Your task to perform on an android device: change alarm snooze length Image 0: 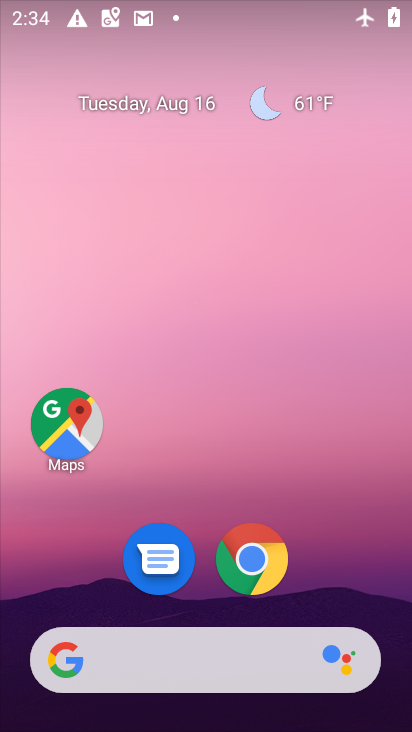
Step 0: drag from (372, 592) to (335, 85)
Your task to perform on an android device: change alarm snooze length Image 1: 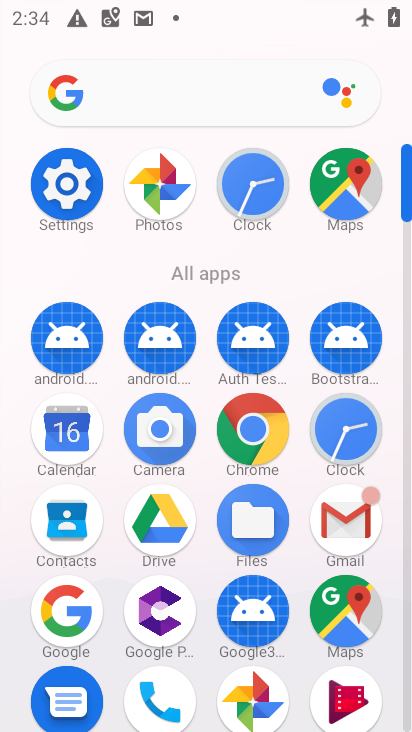
Step 1: click (344, 430)
Your task to perform on an android device: change alarm snooze length Image 2: 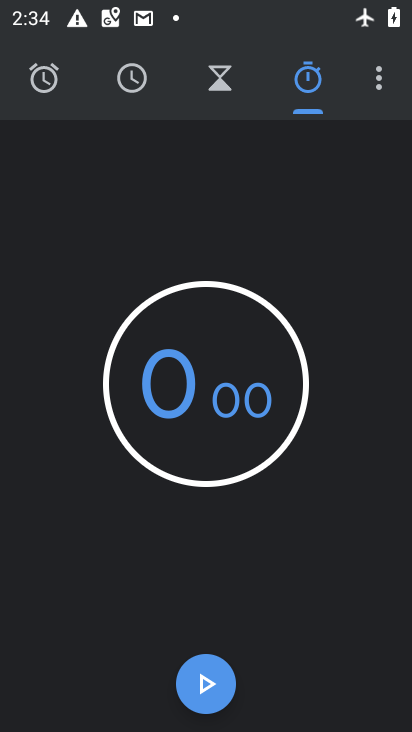
Step 2: click (376, 92)
Your task to perform on an android device: change alarm snooze length Image 3: 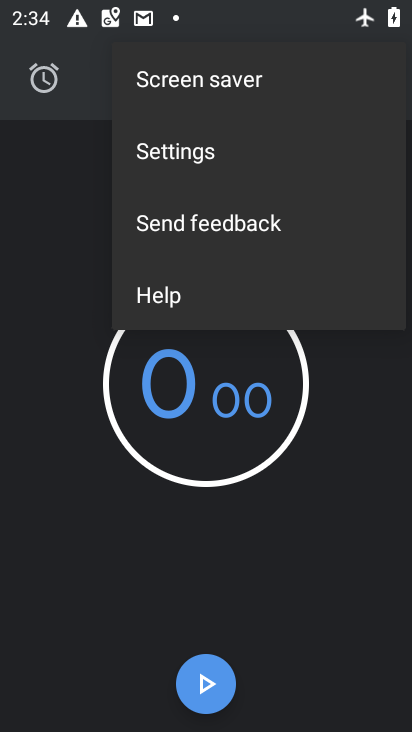
Step 3: click (162, 150)
Your task to perform on an android device: change alarm snooze length Image 4: 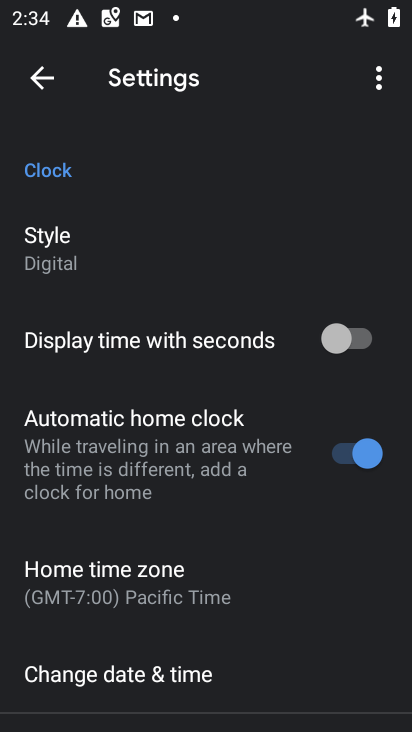
Step 4: drag from (276, 565) to (264, 281)
Your task to perform on an android device: change alarm snooze length Image 5: 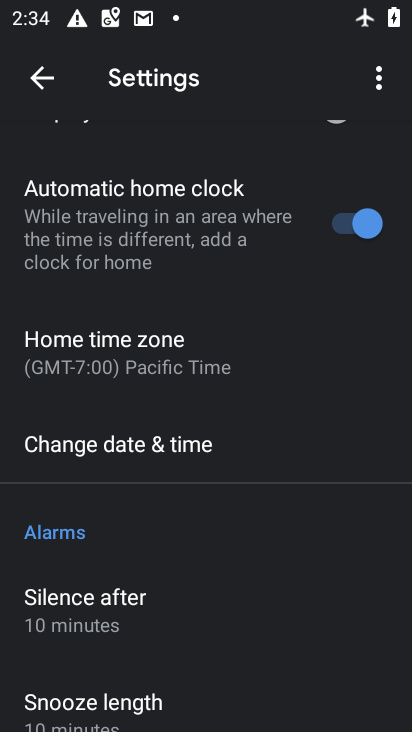
Step 5: drag from (250, 653) to (245, 235)
Your task to perform on an android device: change alarm snooze length Image 6: 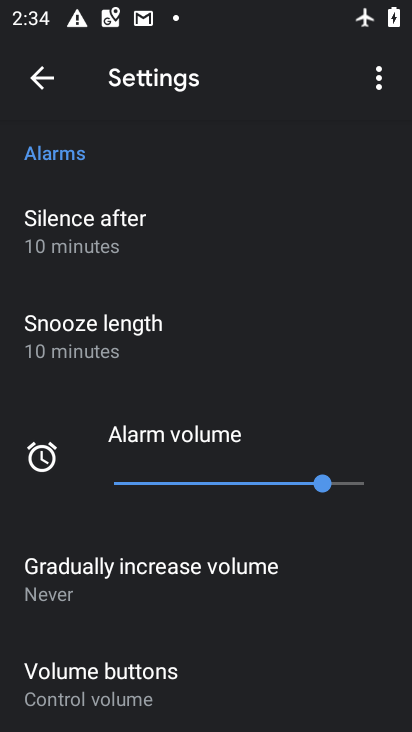
Step 6: click (87, 337)
Your task to perform on an android device: change alarm snooze length Image 7: 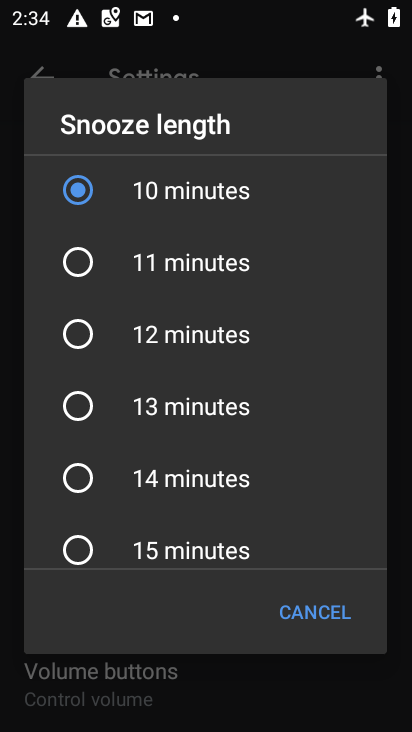
Step 7: drag from (110, 511) to (129, 283)
Your task to perform on an android device: change alarm snooze length Image 8: 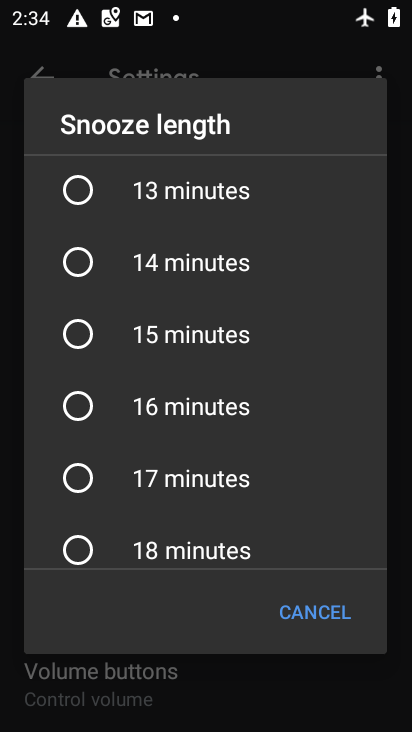
Step 8: click (76, 333)
Your task to perform on an android device: change alarm snooze length Image 9: 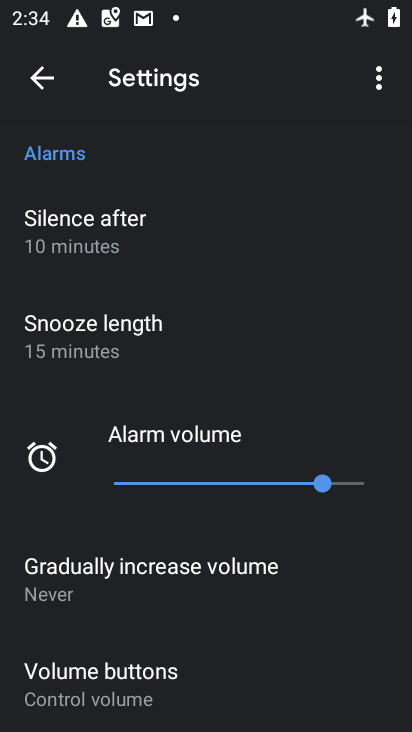
Step 9: task complete